Your task to perform on an android device: clear all cookies in the chrome app Image 0: 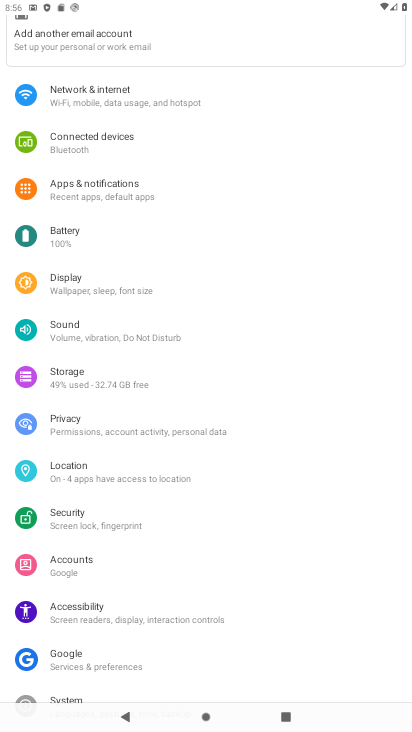
Step 0: press back button
Your task to perform on an android device: clear all cookies in the chrome app Image 1: 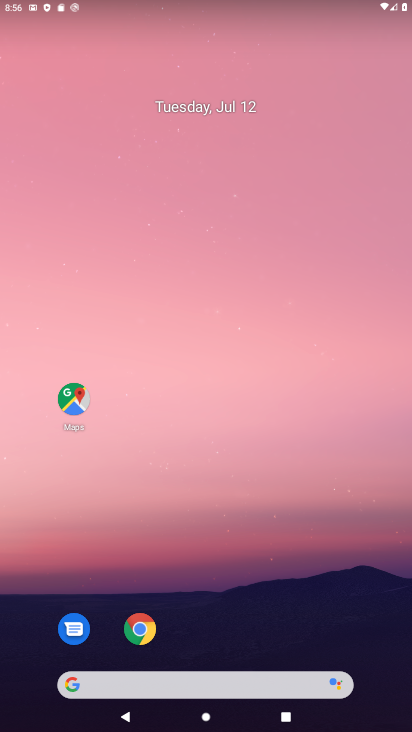
Step 1: drag from (246, 652) to (194, 202)
Your task to perform on an android device: clear all cookies in the chrome app Image 2: 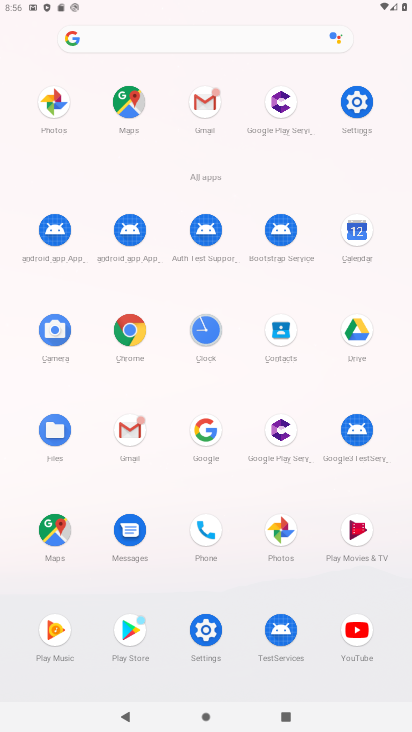
Step 2: click (131, 327)
Your task to perform on an android device: clear all cookies in the chrome app Image 3: 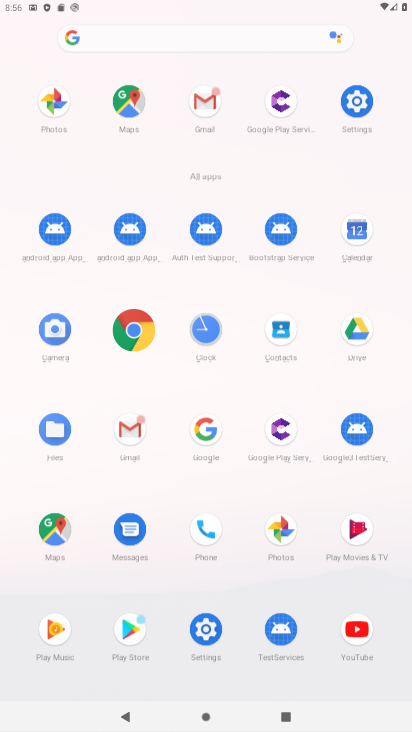
Step 3: click (135, 324)
Your task to perform on an android device: clear all cookies in the chrome app Image 4: 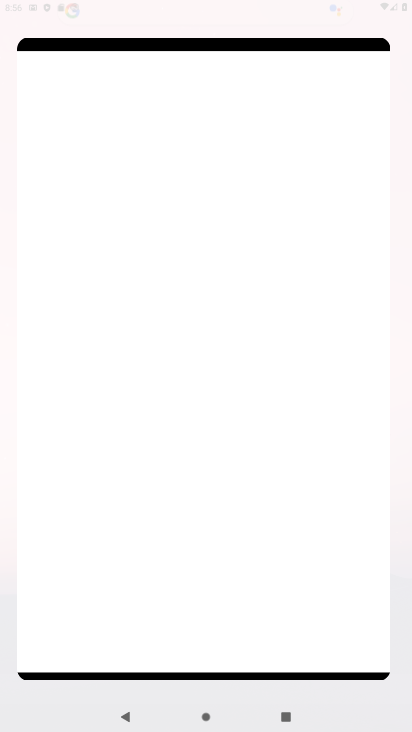
Step 4: click (135, 325)
Your task to perform on an android device: clear all cookies in the chrome app Image 5: 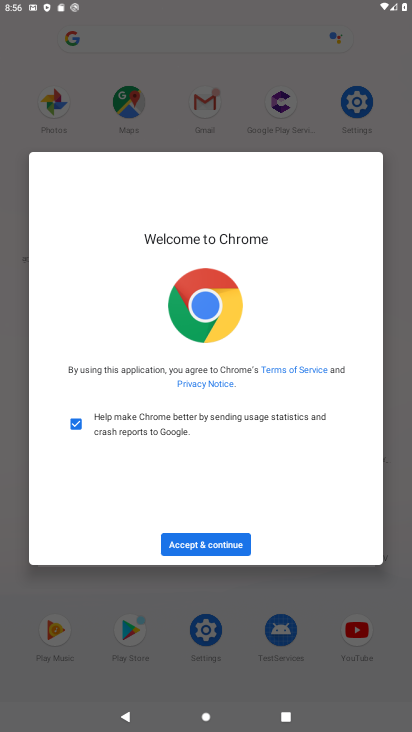
Step 5: click (207, 554)
Your task to perform on an android device: clear all cookies in the chrome app Image 6: 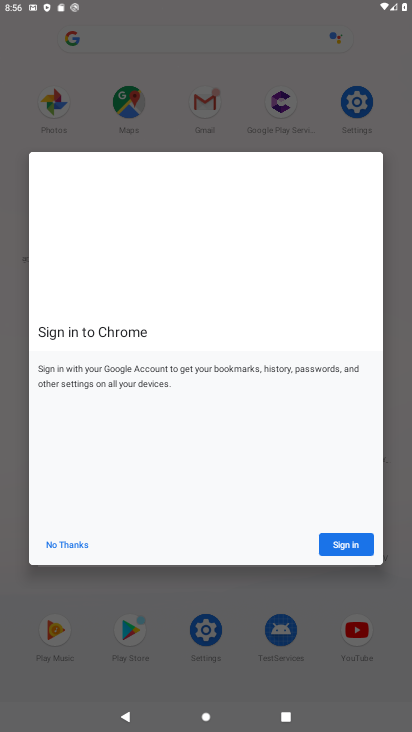
Step 6: click (205, 542)
Your task to perform on an android device: clear all cookies in the chrome app Image 7: 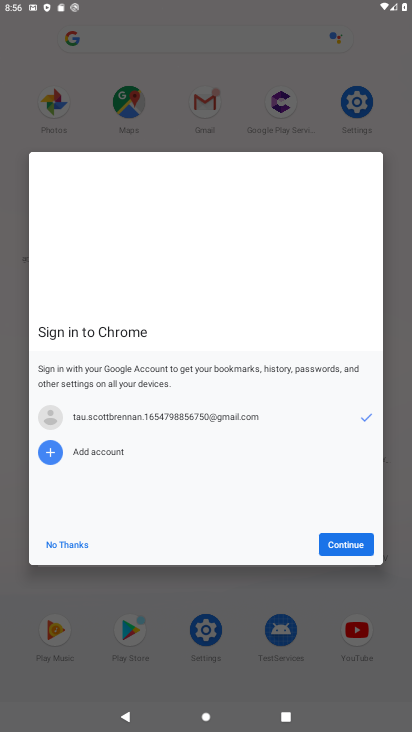
Step 7: click (346, 541)
Your task to perform on an android device: clear all cookies in the chrome app Image 8: 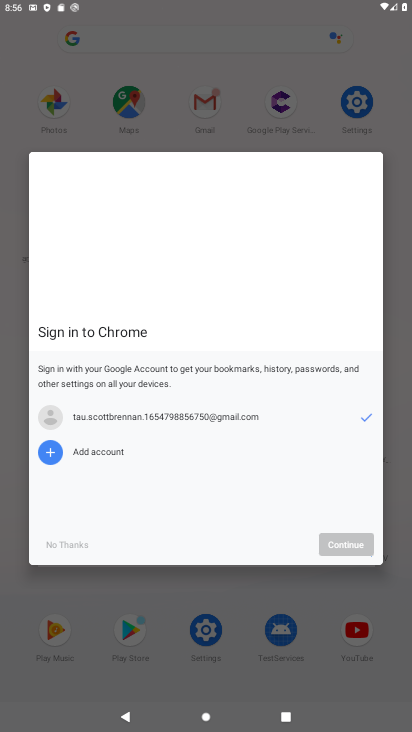
Step 8: click (346, 542)
Your task to perform on an android device: clear all cookies in the chrome app Image 9: 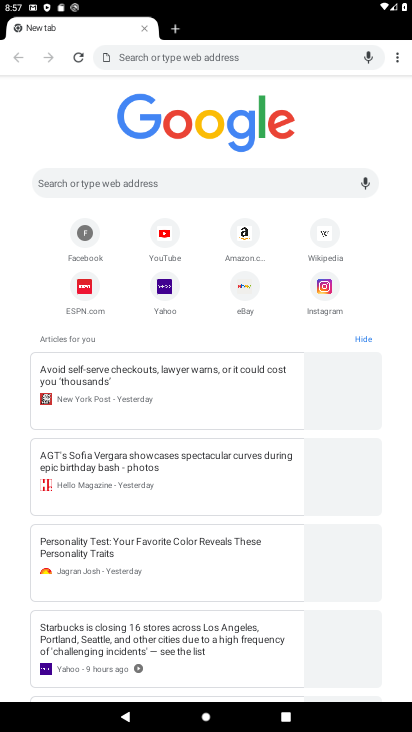
Step 9: click (389, 56)
Your task to perform on an android device: clear all cookies in the chrome app Image 10: 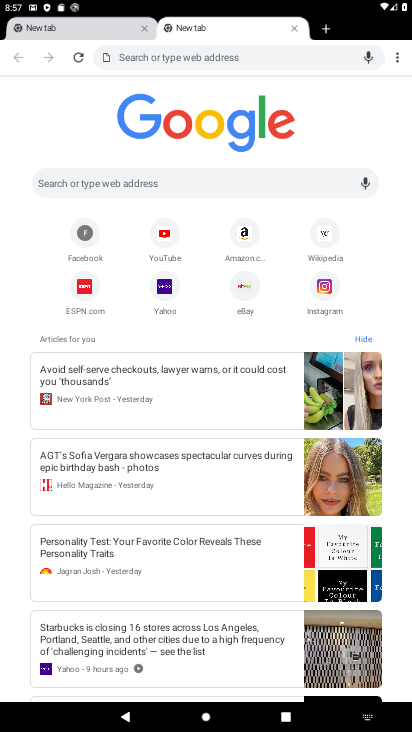
Step 10: drag from (399, 59) to (270, 263)
Your task to perform on an android device: clear all cookies in the chrome app Image 11: 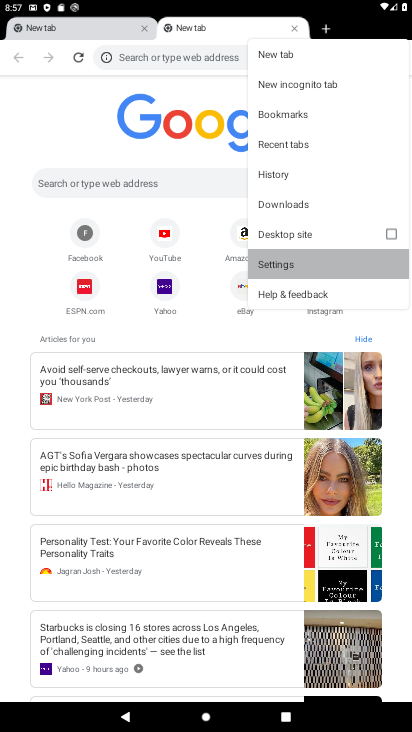
Step 11: click (275, 259)
Your task to perform on an android device: clear all cookies in the chrome app Image 12: 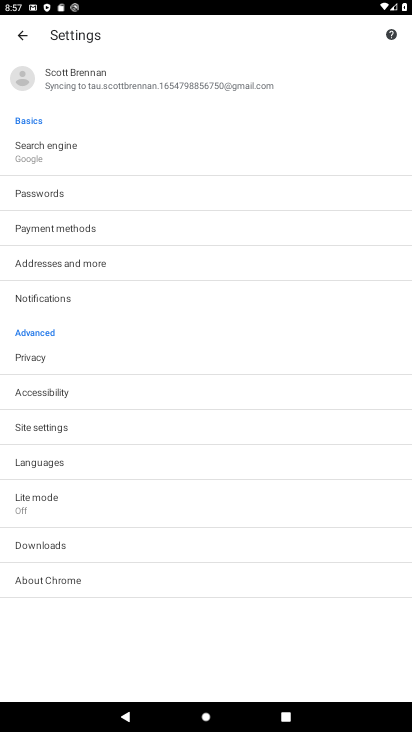
Step 12: click (36, 418)
Your task to perform on an android device: clear all cookies in the chrome app Image 13: 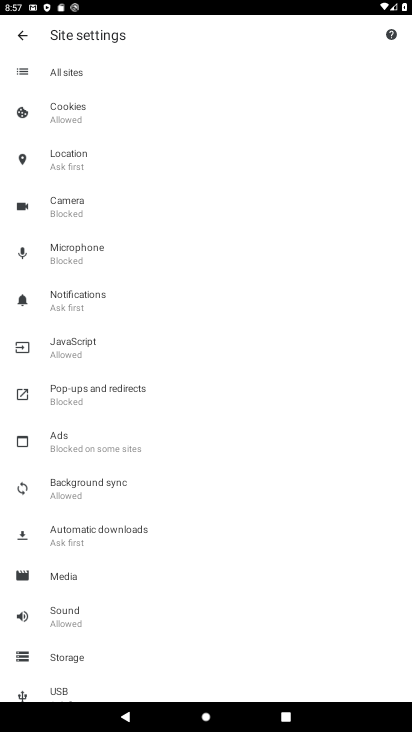
Step 13: click (68, 105)
Your task to perform on an android device: clear all cookies in the chrome app Image 14: 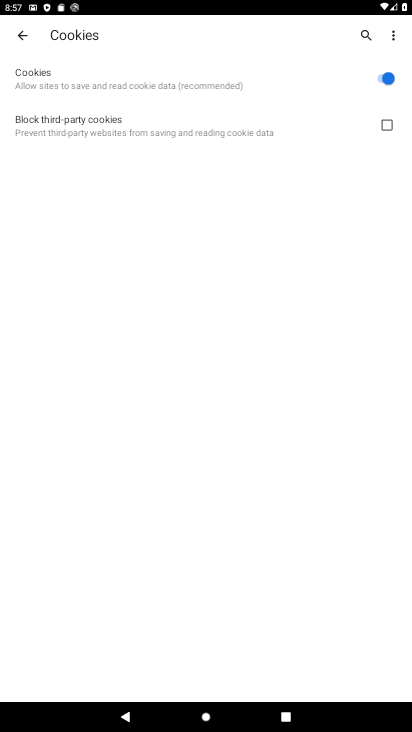
Step 14: click (390, 71)
Your task to perform on an android device: clear all cookies in the chrome app Image 15: 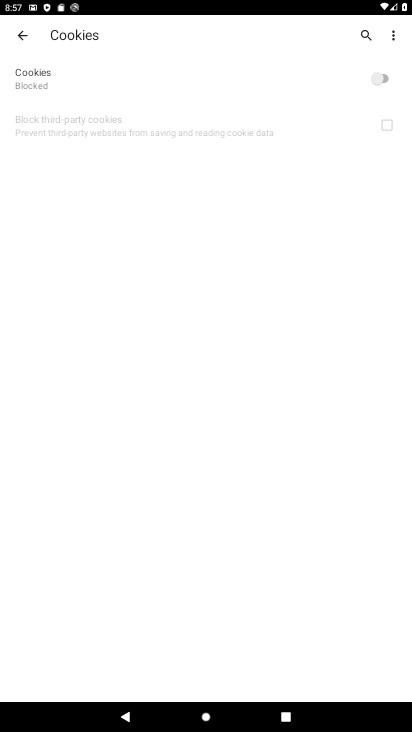
Step 15: task complete